Your task to perform on an android device: check data usage Image 0: 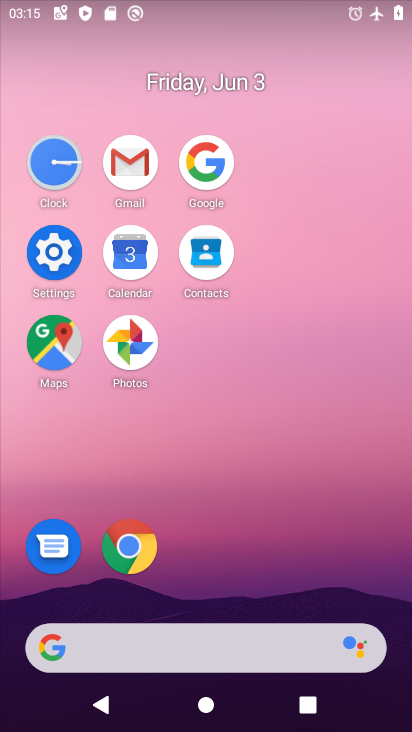
Step 0: click (57, 267)
Your task to perform on an android device: check data usage Image 1: 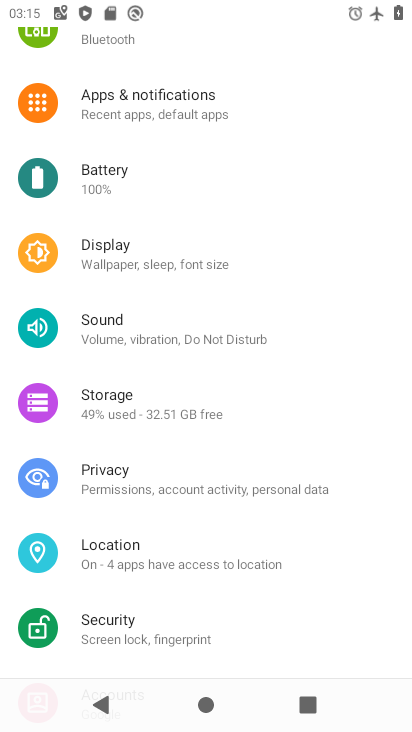
Step 1: drag from (219, 120) to (207, 433)
Your task to perform on an android device: check data usage Image 2: 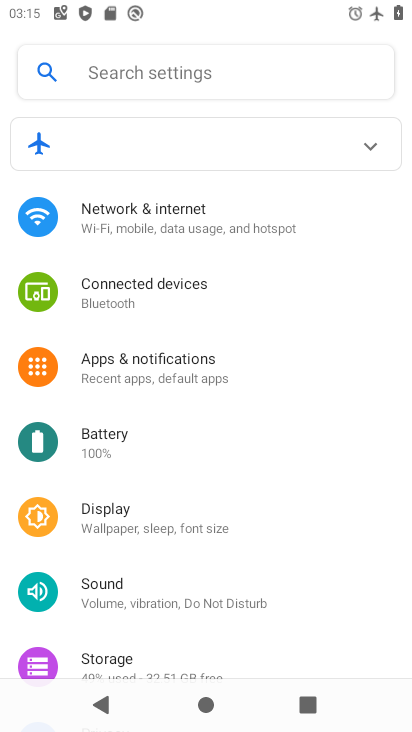
Step 2: click (203, 223)
Your task to perform on an android device: check data usage Image 3: 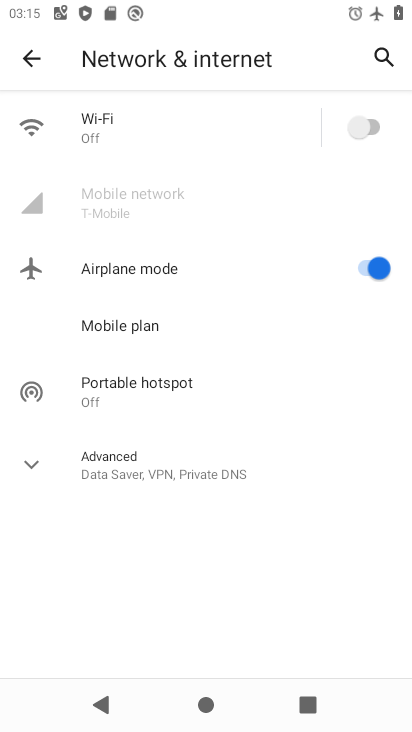
Step 3: task complete